Your task to perform on an android device: What's the weather going to be tomorrow? Image 0: 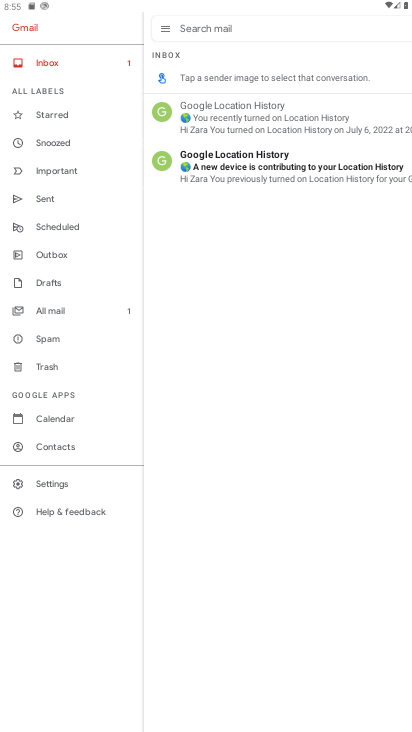
Step 0: press home button
Your task to perform on an android device: What's the weather going to be tomorrow? Image 1: 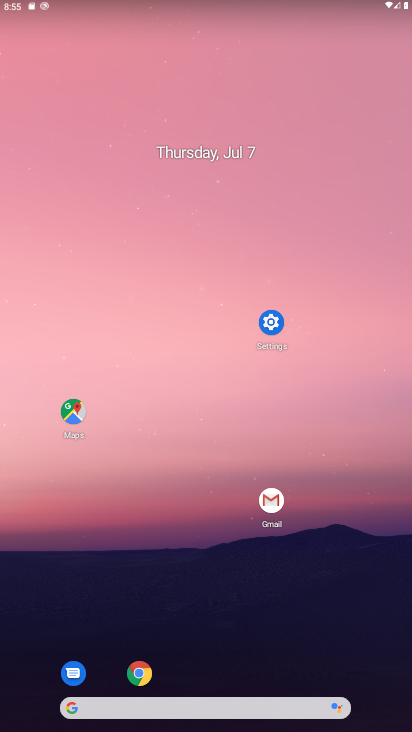
Step 1: task complete